Your task to perform on an android device: Go to ESPN.com Image 0: 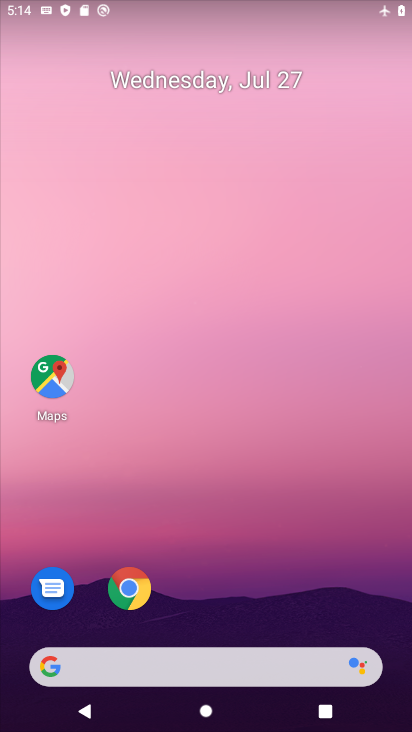
Step 0: drag from (260, 652) to (312, 133)
Your task to perform on an android device: Go to ESPN.com Image 1: 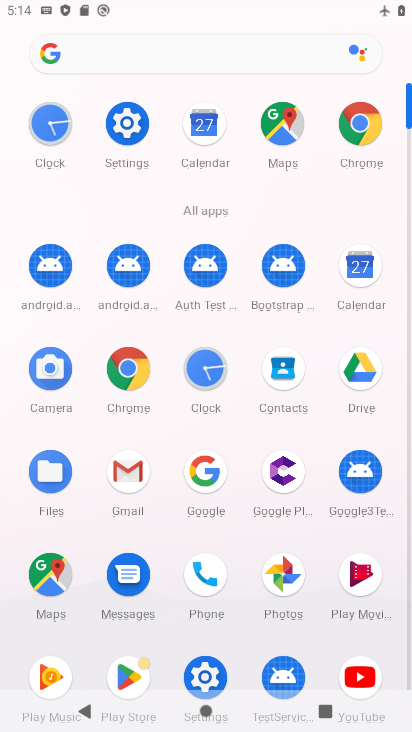
Step 1: click (133, 367)
Your task to perform on an android device: Go to ESPN.com Image 2: 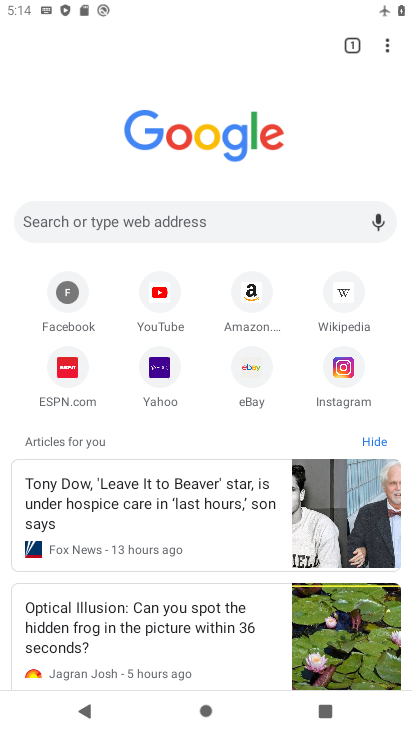
Step 2: click (68, 366)
Your task to perform on an android device: Go to ESPN.com Image 3: 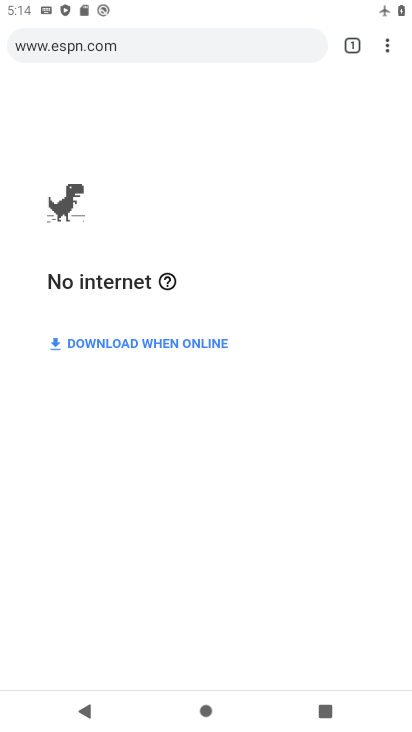
Step 3: task complete